Your task to perform on an android device: delete a single message in the gmail app Image 0: 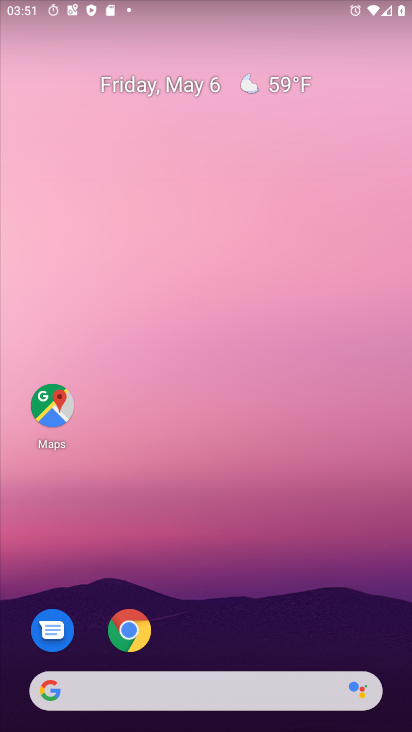
Step 0: drag from (228, 601) to (214, 154)
Your task to perform on an android device: delete a single message in the gmail app Image 1: 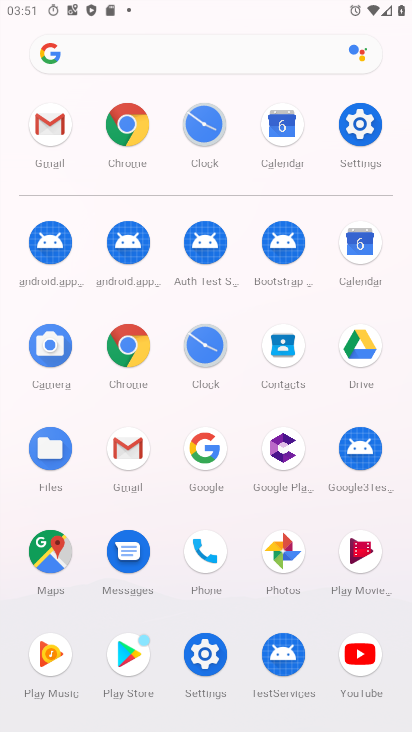
Step 1: click (50, 112)
Your task to perform on an android device: delete a single message in the gmail app Image 2: 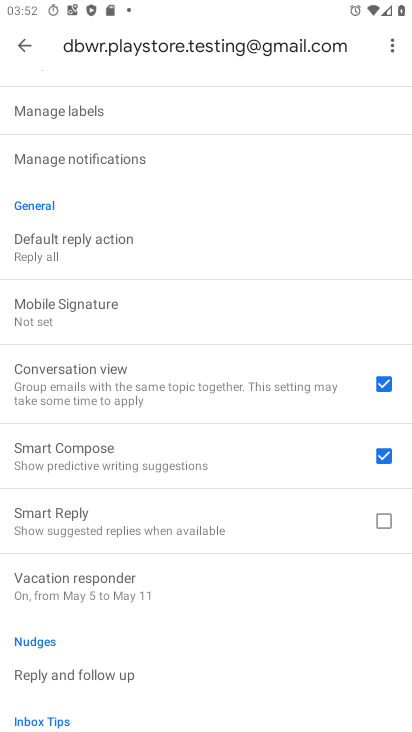
Step 2: click (18, 49)
Your task to perform on an android device: delete a single message in the gmail app Image 3: 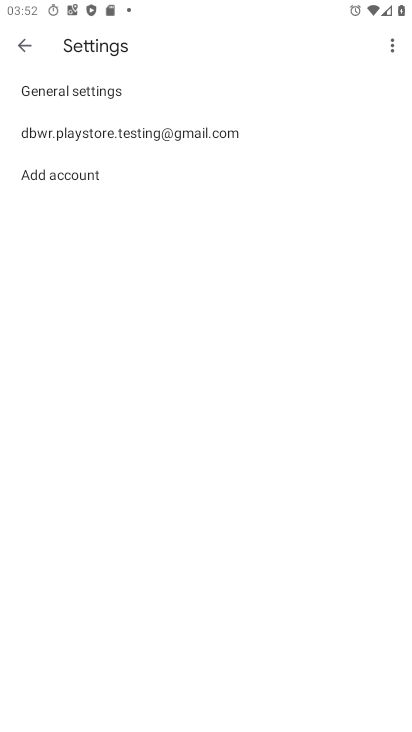
Step 3: click (18, 49)
Your task to perform on an android device: delete a single message in the gmail app Image 4: 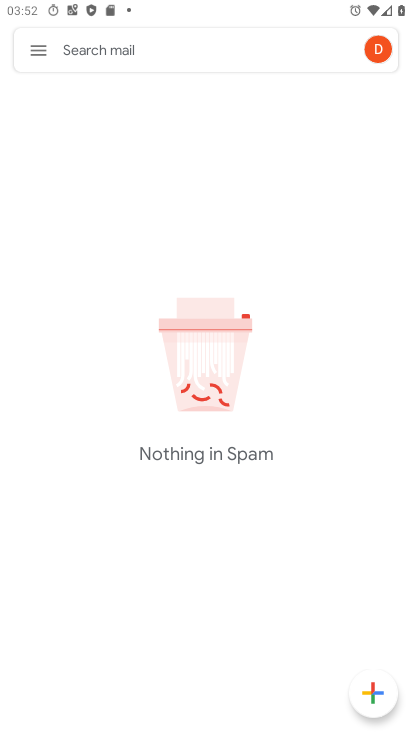
Step 4: click (18, 49)
Your task to perform on an android device: delete a single message in the gmail app Image 5: 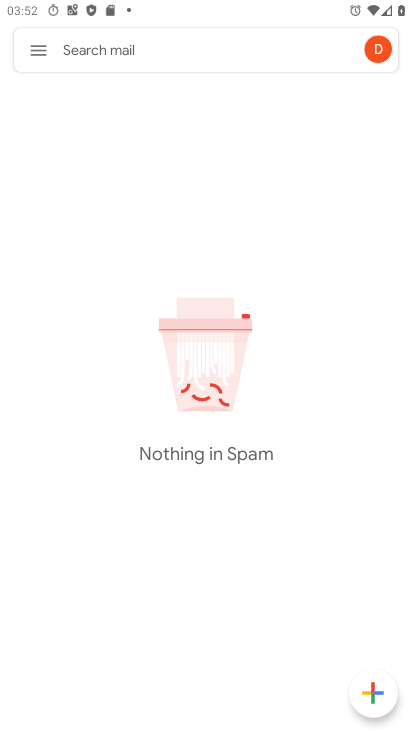
Step 5: click (42, 52)
Your task to perform on an android device: delete a single message in the gmail app Image 6: 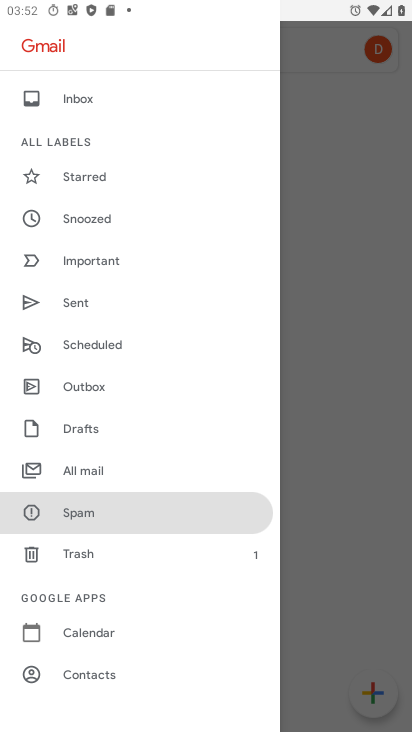
Step 6: drag from (114, 635) to (150, 411)
Your task to perform on an android device: delete a single message in the gmail app Image 7: 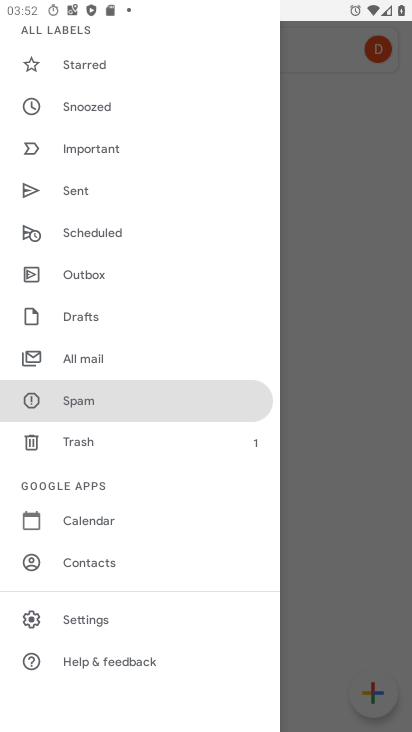
Step 7: click (117, 347)
Your task to perform on an android device: delete a single message in the gmail app Image 8: 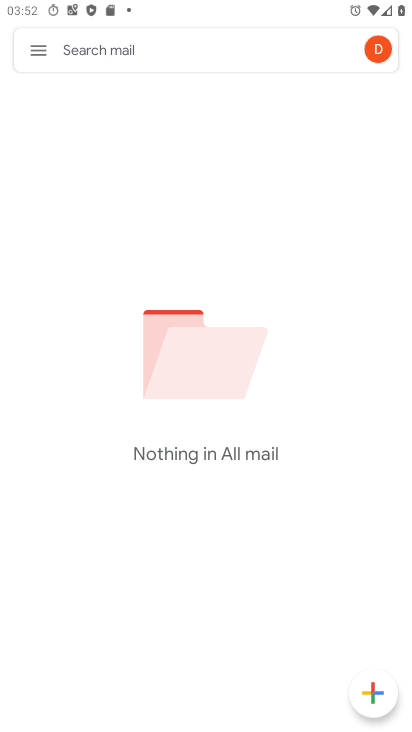
Step 8: task complete